Your task to perform on an android device: Show me popular games on the Play Store Image 0: 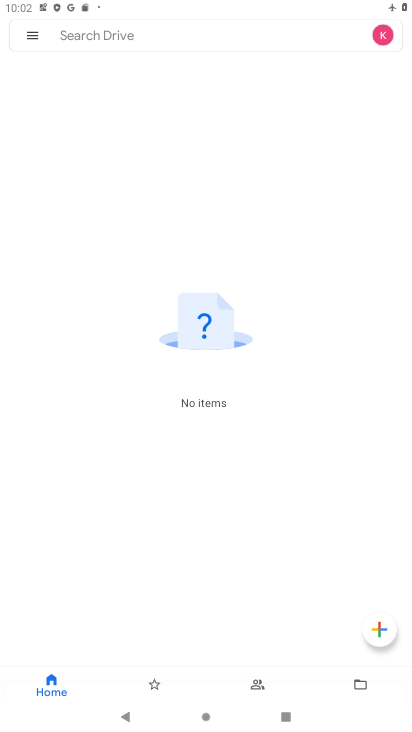
Step 0: press home button
Your task to perform on an android device: Show me popular games on the Play Store Image 1: 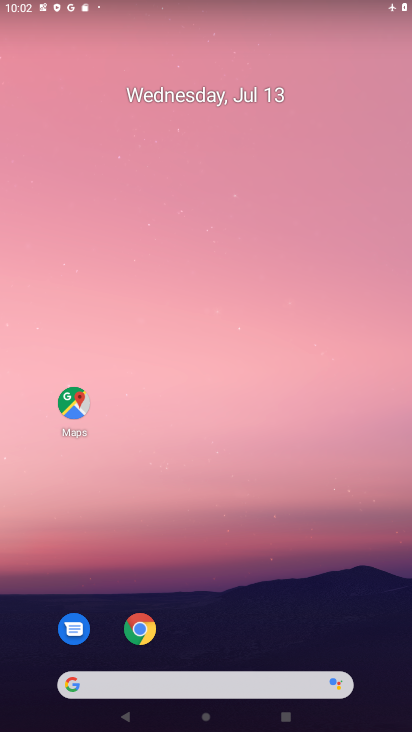
Step 1: drag from (309, 617) to (300, 261)
Your task to perform on an android device: Show me popular games on the Play Store Image 2: 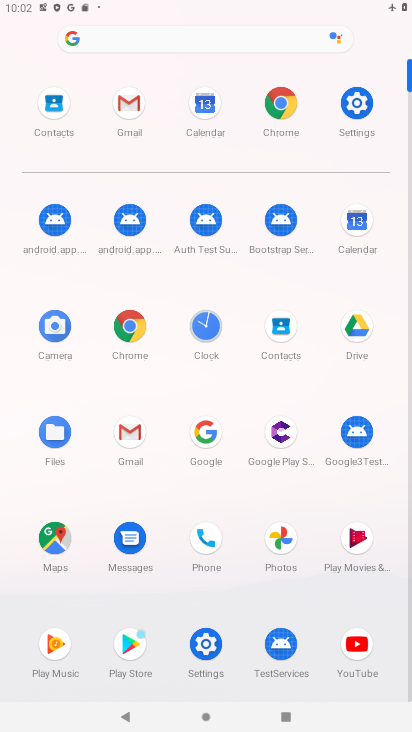
Step 2: click (138, 643)
Your task to perform on an android device: Show me popular games on the Play Store Image 3: 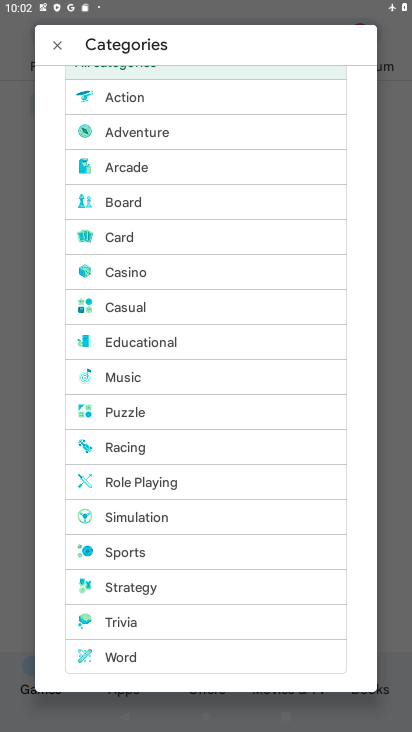
Step 3: task complete